Your task to perform on an android device: check out phone information Image 0: 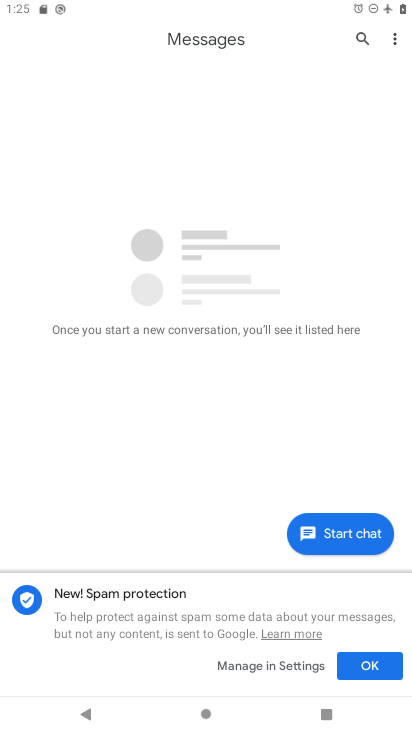
Step 0: press home button
Your task to perform on an android device: check out phone information Image 1: 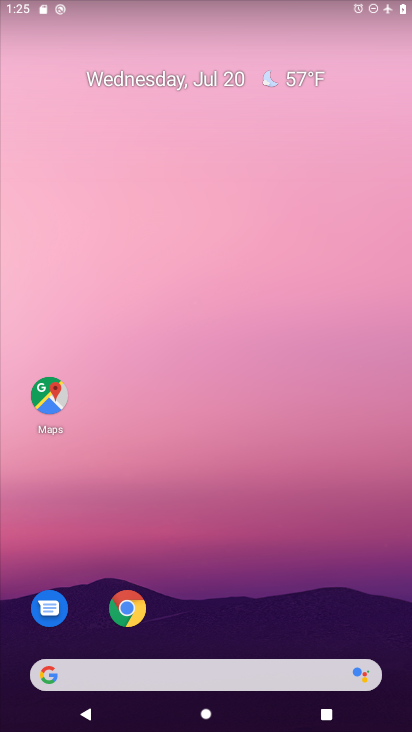
Step 1: drag from (143, 706) to (255, 112)
Your task to perform on an android device: check out phone information Image 2: 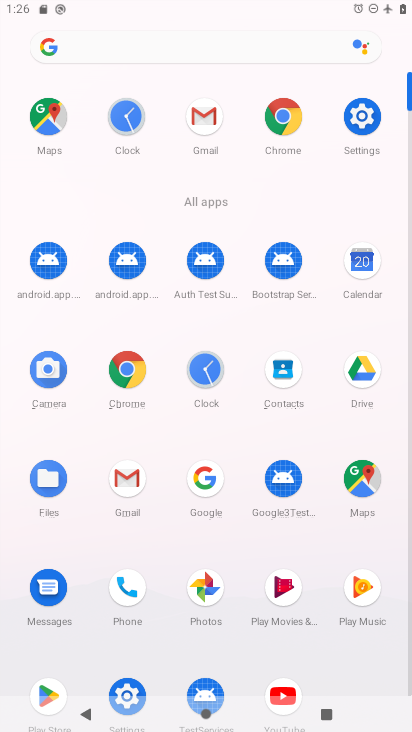
Step 2: click (131, 687)
Your task to perform on an android device: check out phone information Image 3: 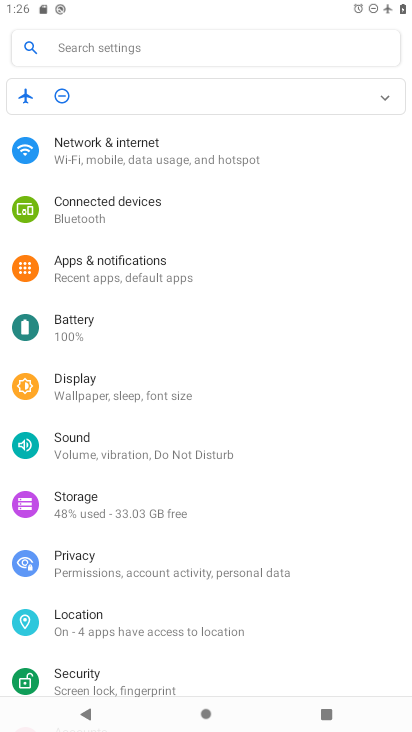
Step 3: drag from (156, 661) to (216, 165)
Your task to perform on an android device: check out phone information Image 4: 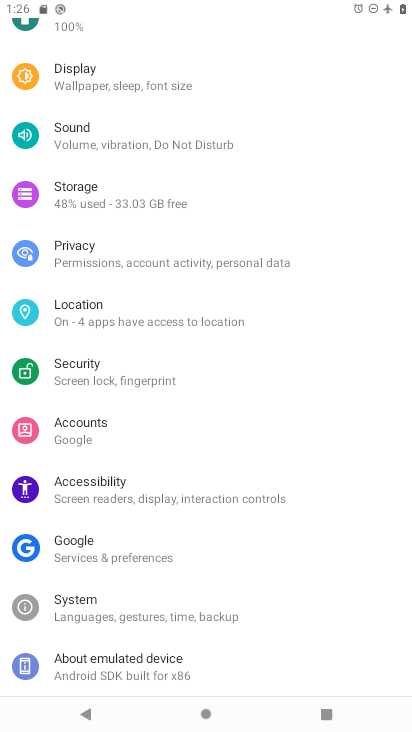
Step 4: click (140, 671)
Your task to perform on an android device: check out phone information Image 5: 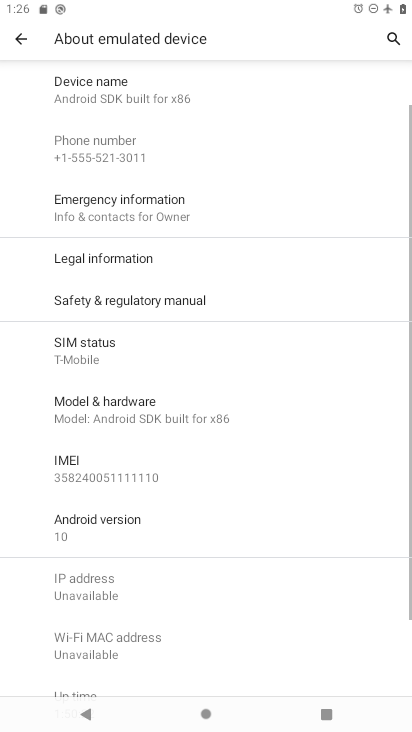
Step 5: task complete